Your task to perform on an android device: Go to network settings Image 0: 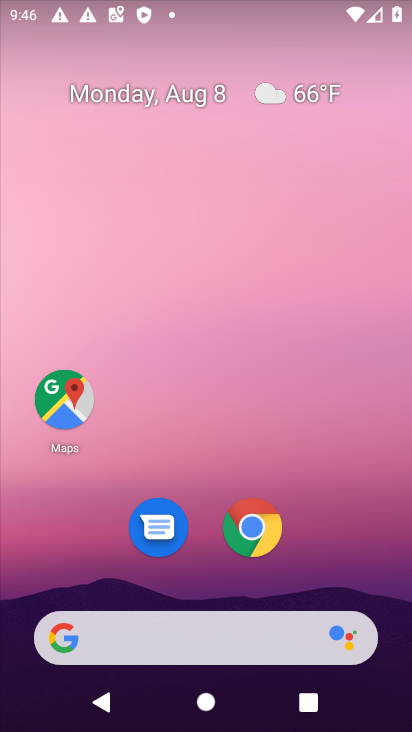
Step 0: drag from (388, 648) to (345, 82)
Your task to perform on an android device: Go to network settings Image 1: 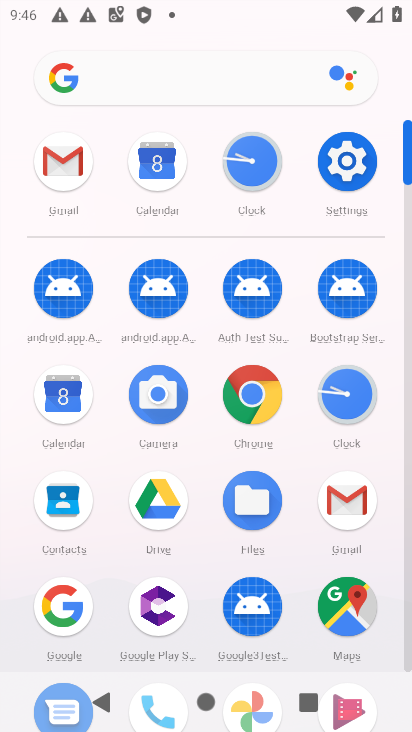
Step 1: click (346, 172)
Your task to perform on an android device: Go to network settings Image 2: 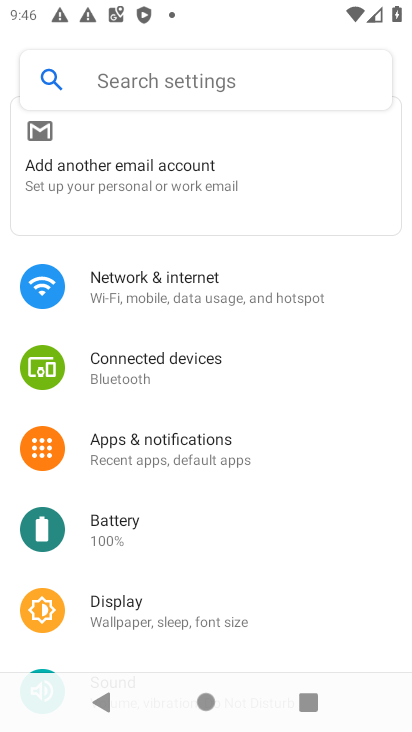
Step 2: click (166, 274)
Your task to perform on an android device: Go to network settings Image 3: 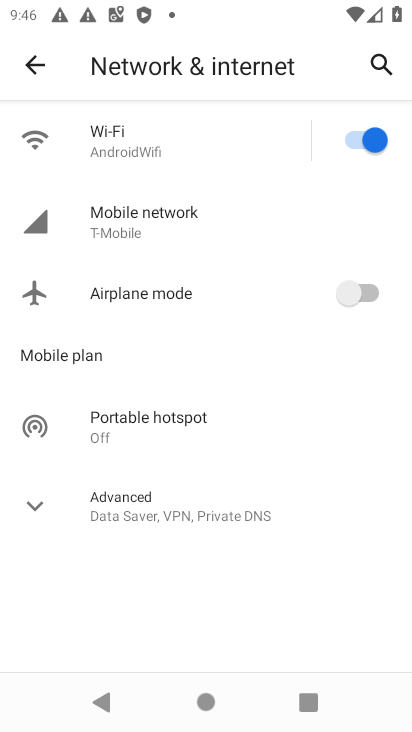
Step 3: drag from (247, 152) to (242, 496)
Your task to perform on an android device: Go to network settings Image 4: 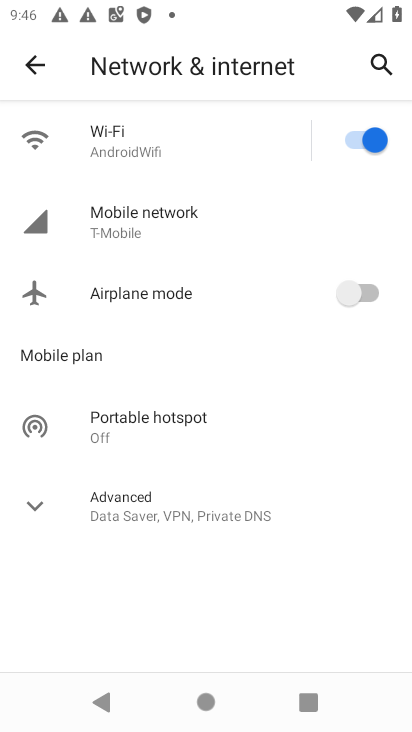
Step 4: click (121, 210)
Your task to perform on an android device: Go to network settings Image 5: 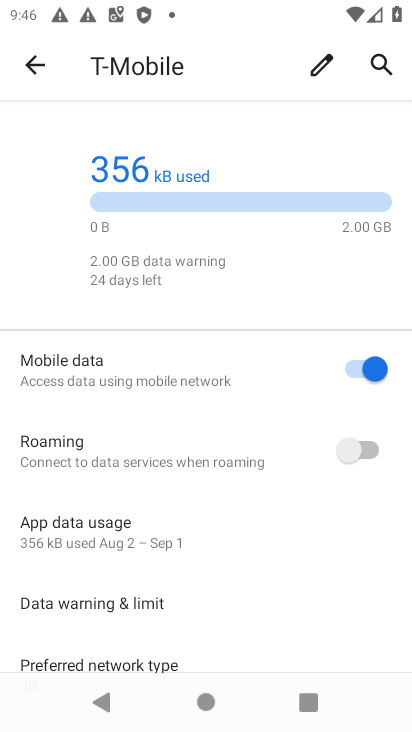
Step 5: drag from (259, 584) to (301, 335)
Your task to perform on an android device: Go to network settings Image 6: 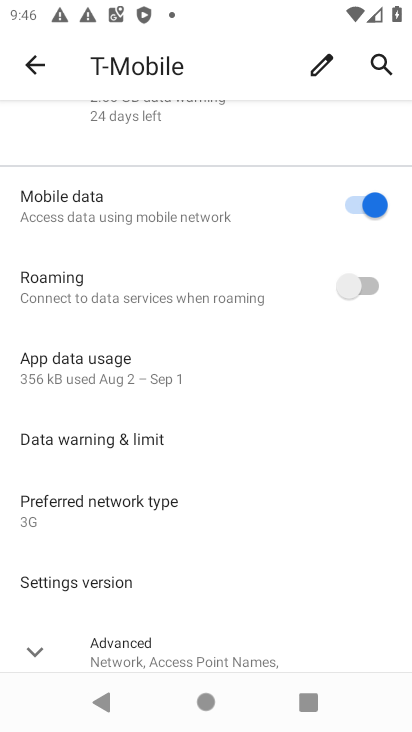
Step 6: click (48, 650)
Your task to perform on an android device: Go to network settings Image 7: 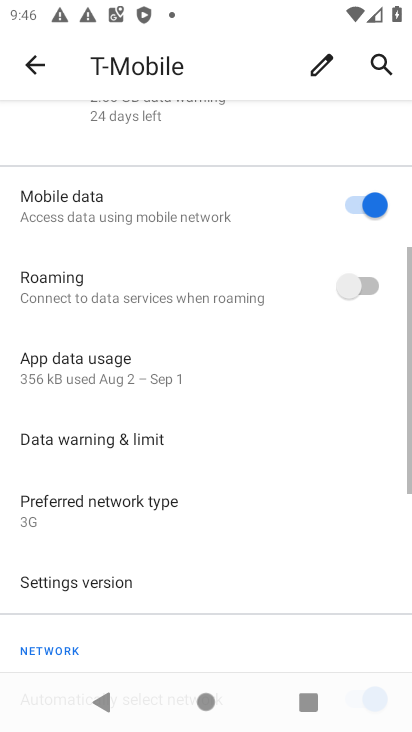
Step 7: task complete